Your task to perform on an android device: remove spam from my inbox in the gmail app Image 0: 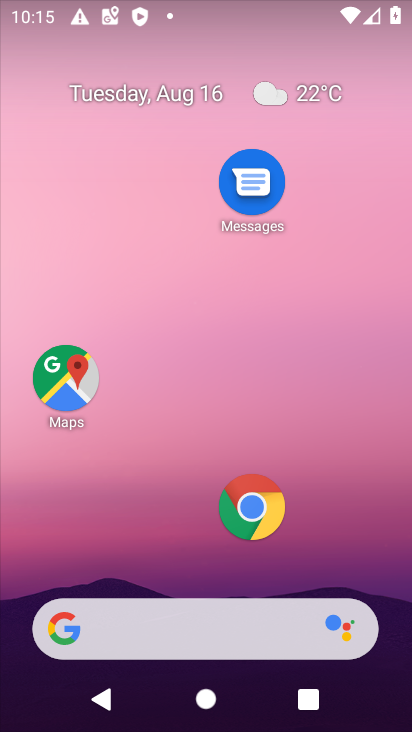
Step 0: drag from (140, 610) to (195, 89)
Your task to perform on an android device: remove spam from my inbox in the gmail app Image 1: 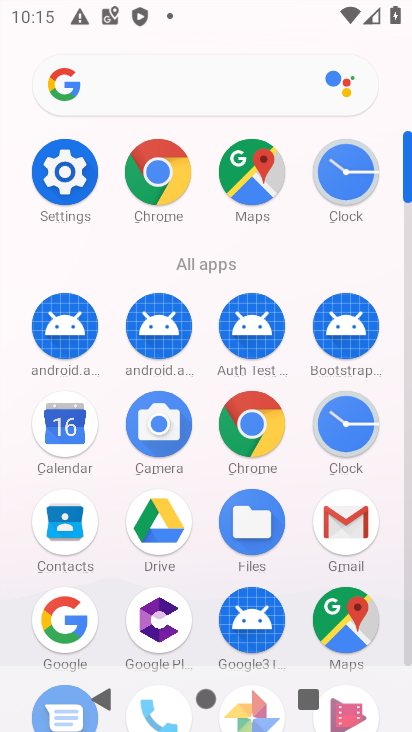
Step 1: click (347, 534)
Your task to perform on an android device: remove spam from my inbox in the gmail app Image 2: 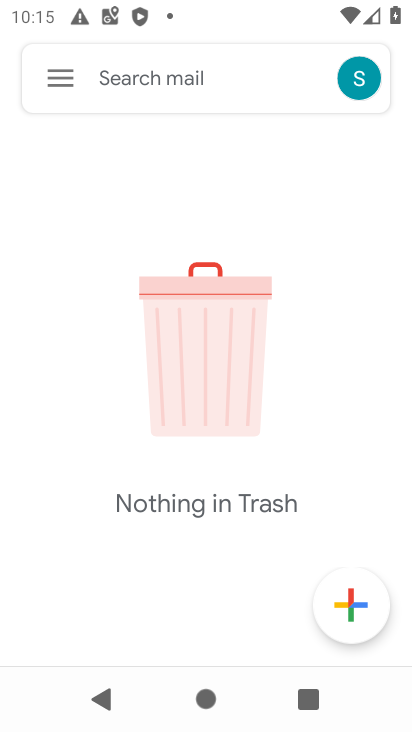
Step 2: click (68, 78)
Your task to perform on an android device: remove spam from my inbox in the gmail app Image 3: 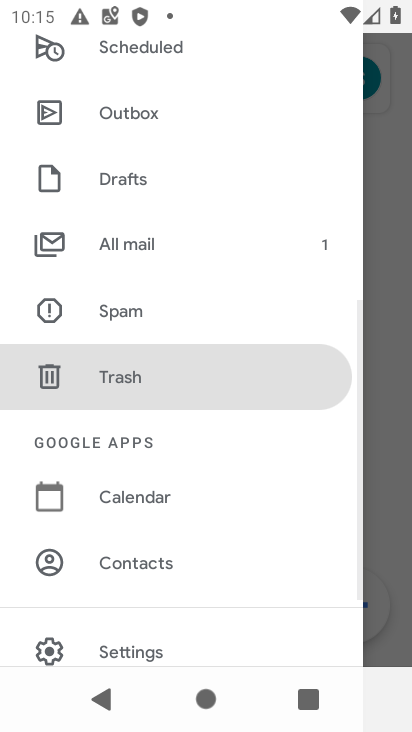
Step 3: click (156, 304)
Your task to perform on an android device: remove spam from my inbox in the gmail app Image 4: 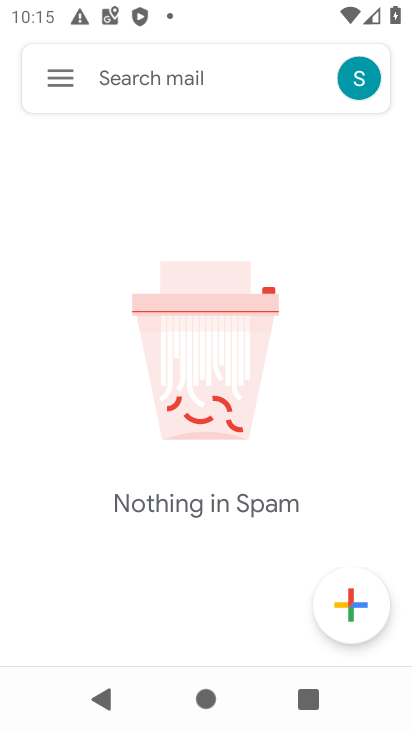
Step 4: task complete